Your task to perform on an android device: Open CNN.com Image 0: 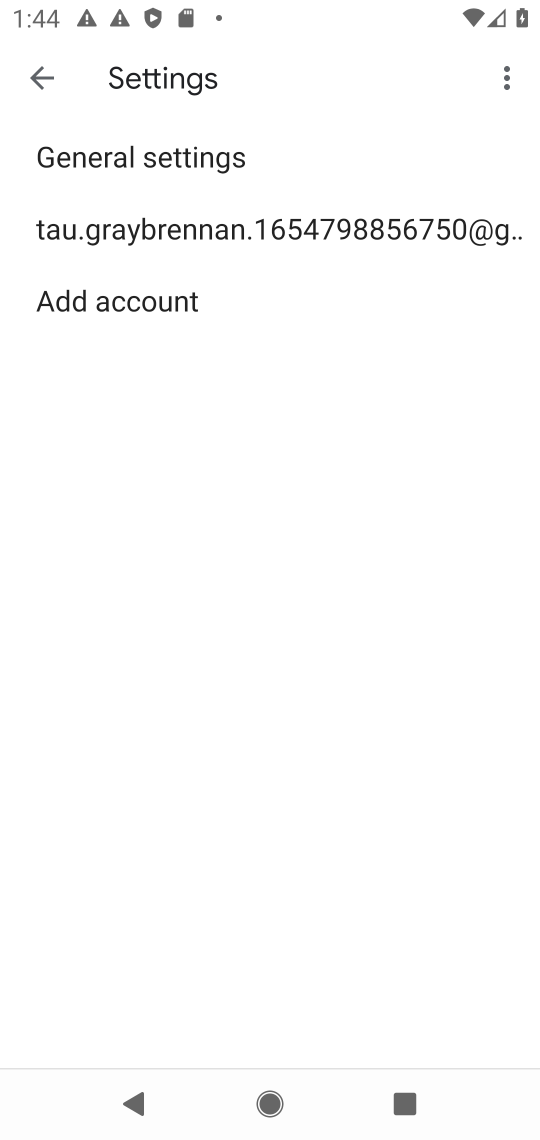
Step 0: press home button
Your task to perform on an android device: Open CNN.com Image 1: 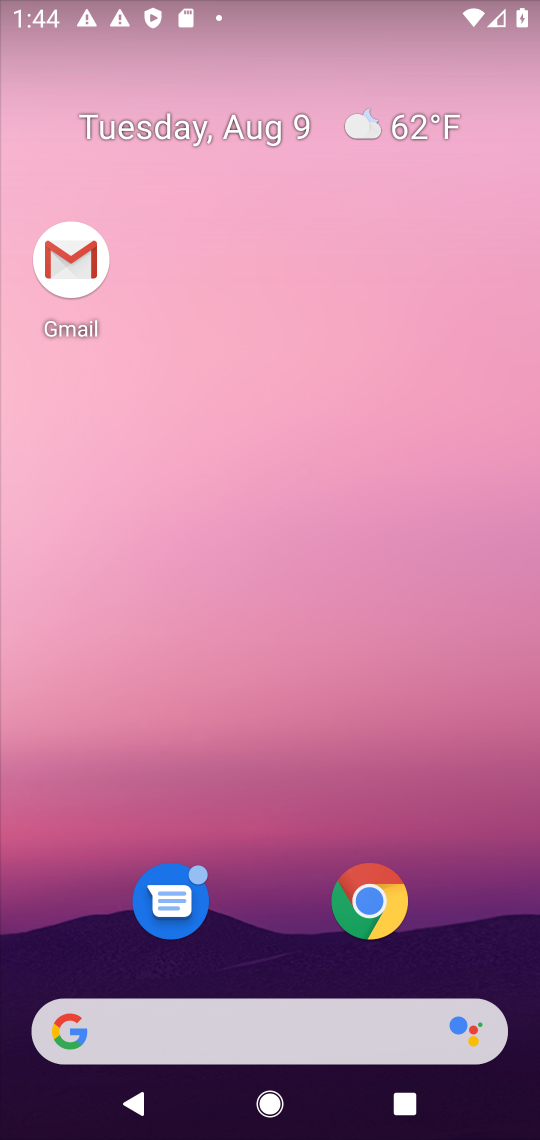
Step 1: click (390, 898)
Your task to perform on an android device: Open CNN.com Image 2: 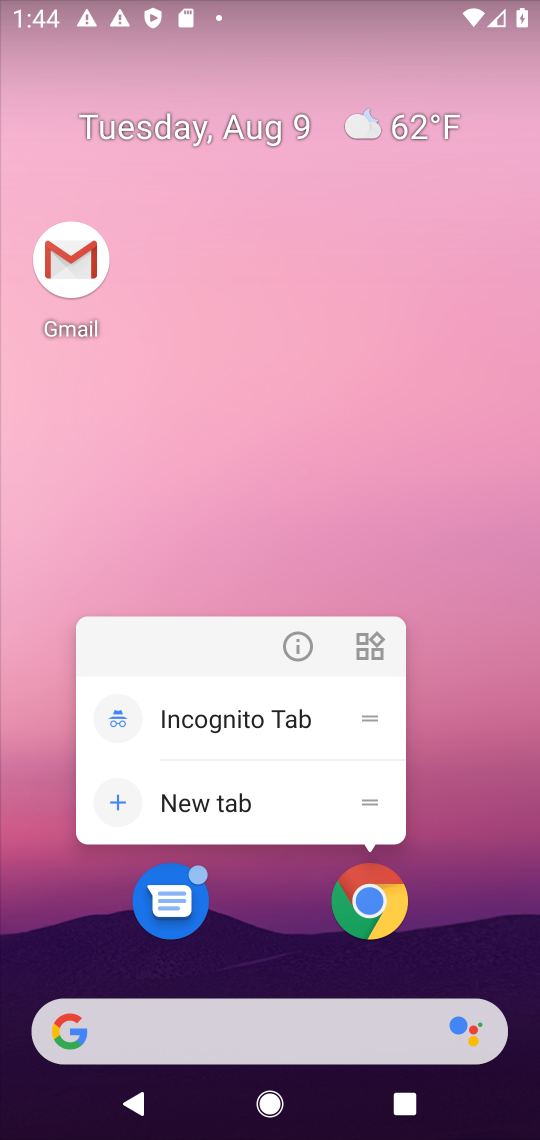
Step 2: click (390, 898)
Your task to perform on an android device: Open CNN.com Image 3: 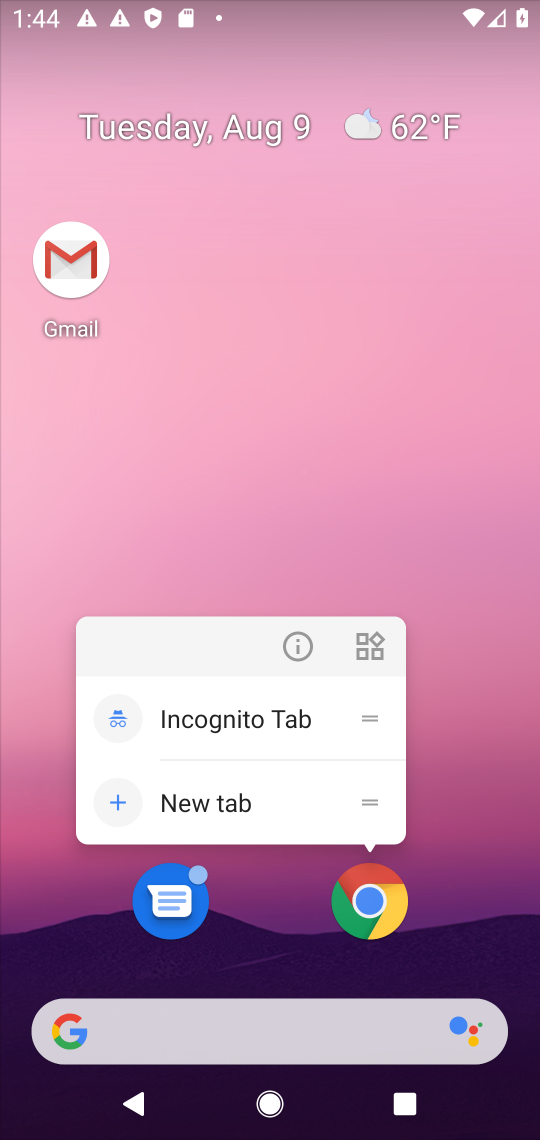
Step 3: click (390, 898)
Your task to perform on an android device: Open CNN.com Image 4: 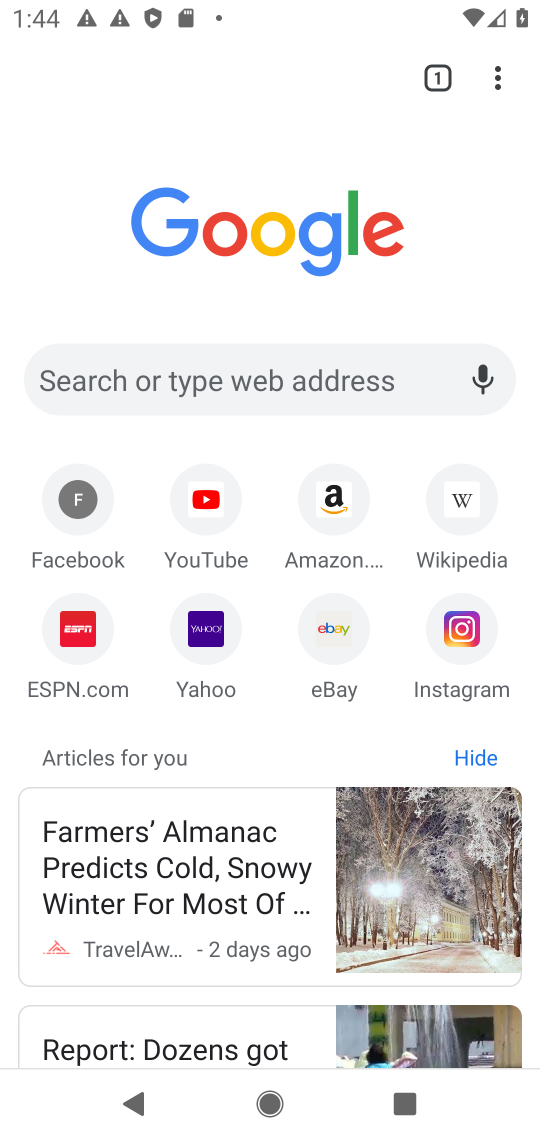
Step 4: click (171, 399)
Your task to perform on an android device: Open CNN.com Image 5: 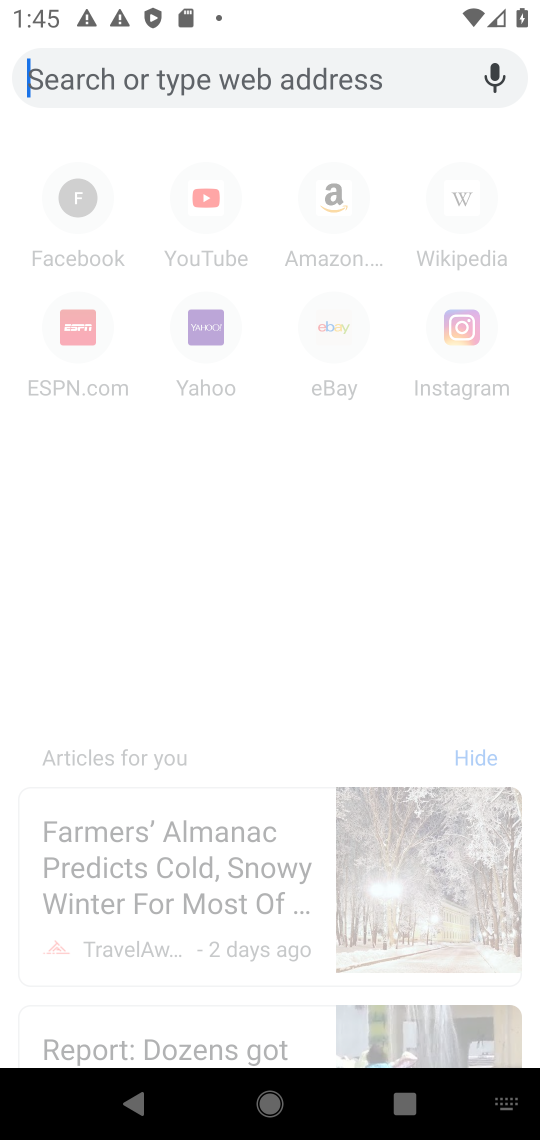
Step 5: type "cnn"
Your task to perform on an android device: Open CNN.com Image 6: 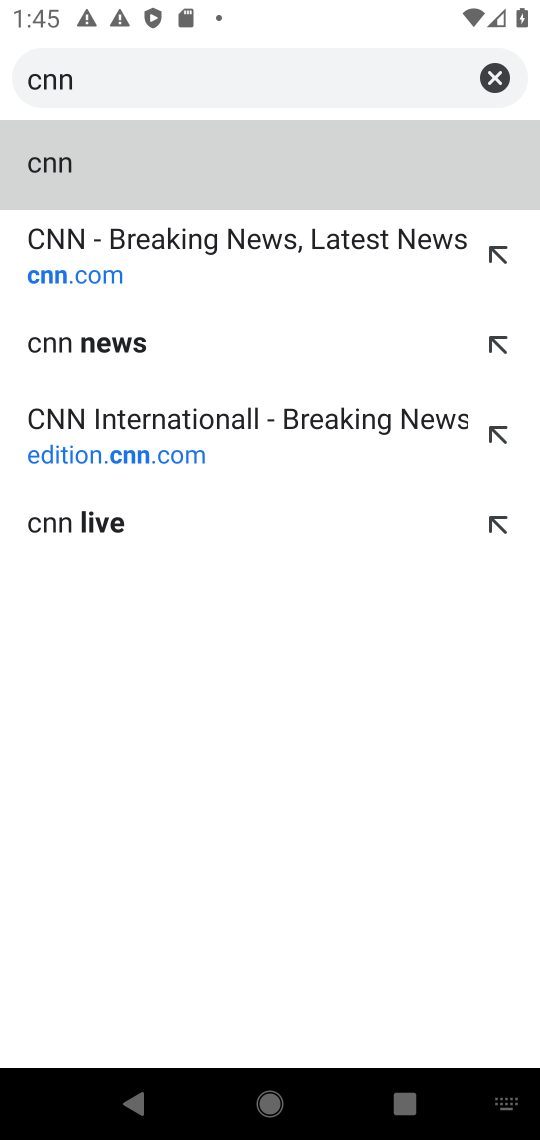
Step 6: click (52, 250)
Your task to perform on an android device: Open CNN.com Image 7: 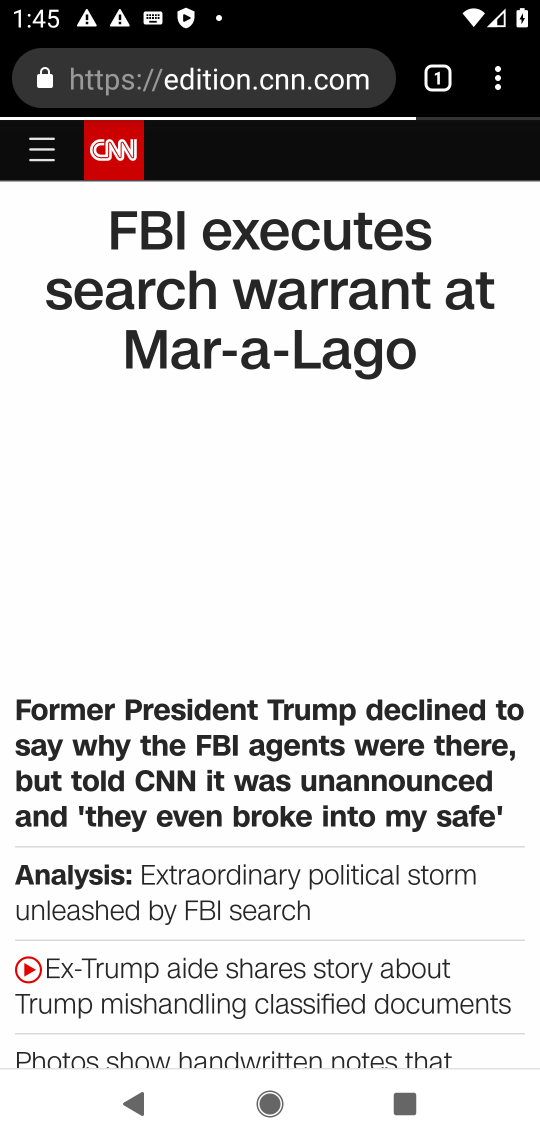
Step 7: task complete